Your task to perform on an android device: change alarm snooze length Image 0: 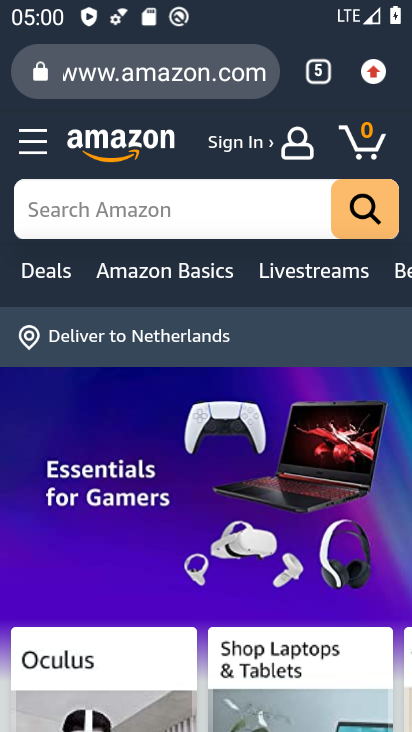
Step 0: press home button
Your task to perform on an android device: change alarm snooze length Image 1: 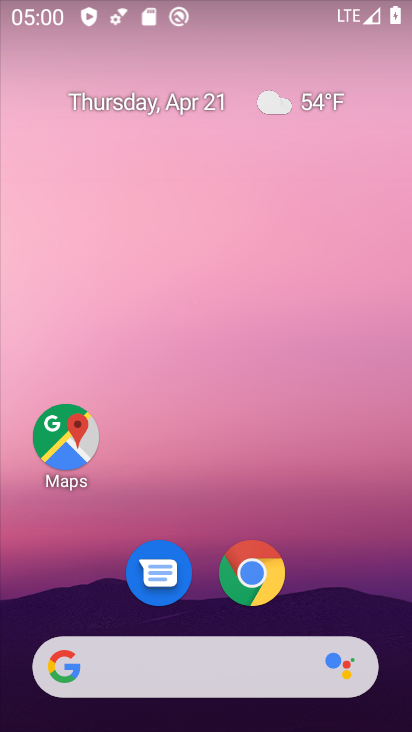
Step 1: drag from (397, 648) to (335, 280)
Your task to perform on an android device: change alarm snooze length Image 2: 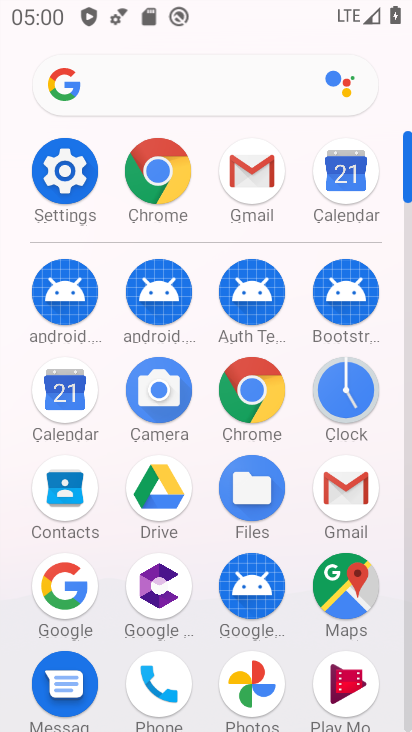
Step 2: click (406, 696)
Your task to perform on an android device: change alarm snooze length Image 3: 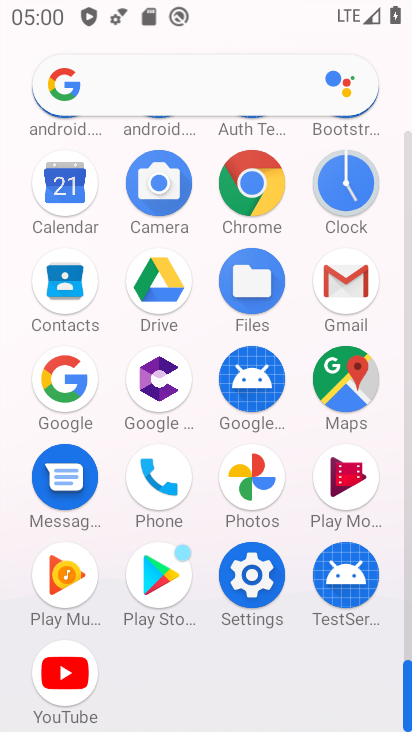
Step 3: click (345, 178)
Your task to perform on an android device: change alarm snooze length Image 4: 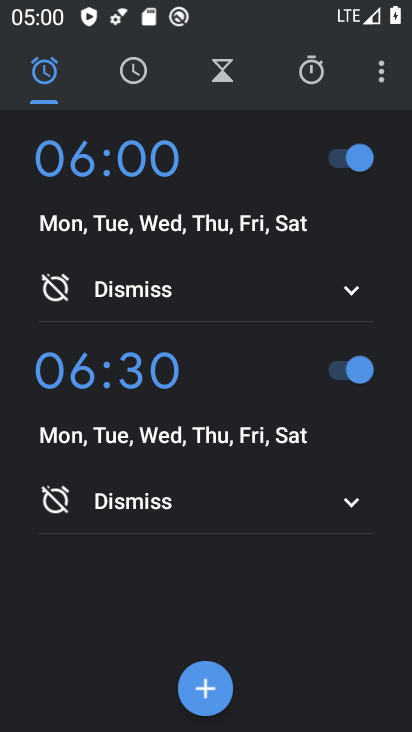
Step 4: click (382, 75)
Your task to perform on an android device: change alarm snooze length Image 5: 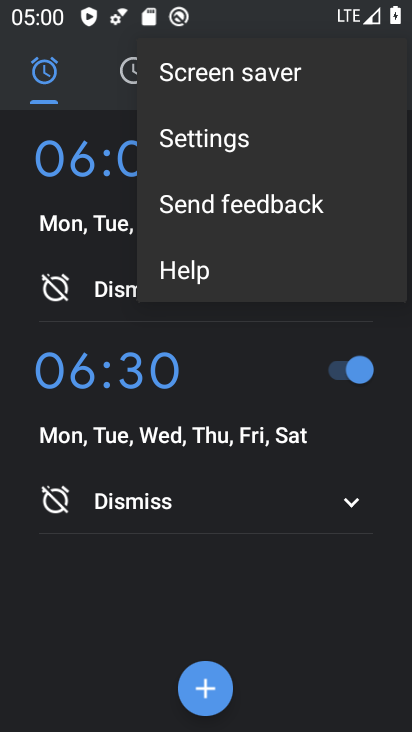
Step 5: click (183, 140)
Your task to perform on an android device: change alarm snooze length Image 6: 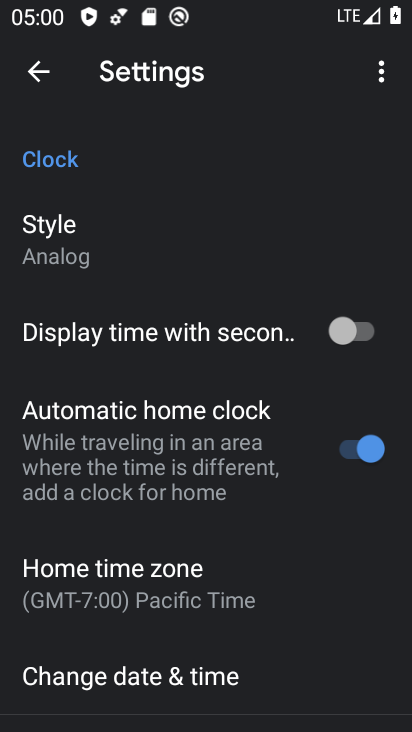
Step 6: drag from (287, 596) to (344, 222)
Your task to perform on an android device: change alarm snooze length Image 7: 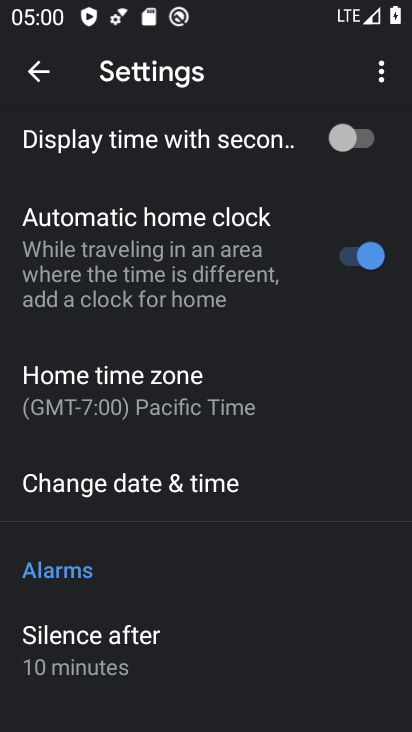
Step 7: drag from (268, 551) to (303, 231)
Your task to perform on an android device: change alarm snooze length Image 8: 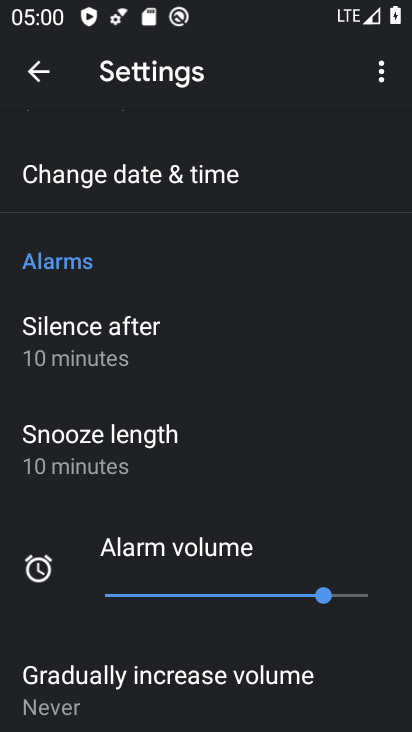
Step 8: click (69, 448)
Your task to perform on an android device: change alarm snooze length Image 9: 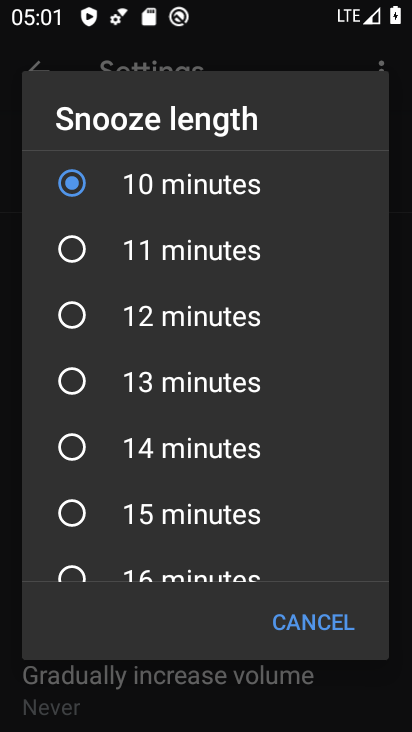
Step 9: click (73, 510)
Your task to perform on an android device: change alarm snooze length Image 10: 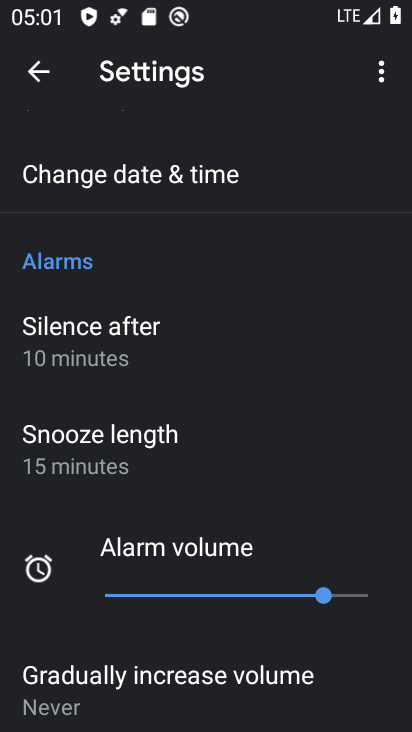
Step 10: task complete